Your task to perform on an android device: all mails in gmail Image 0: 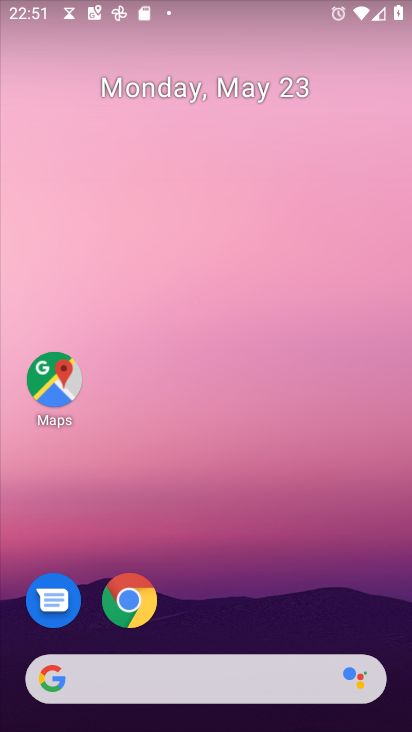
Step 0: drag from (212, 725) to (211, 133)
Your task to perform on an android device: all mails in gmail Image 1: 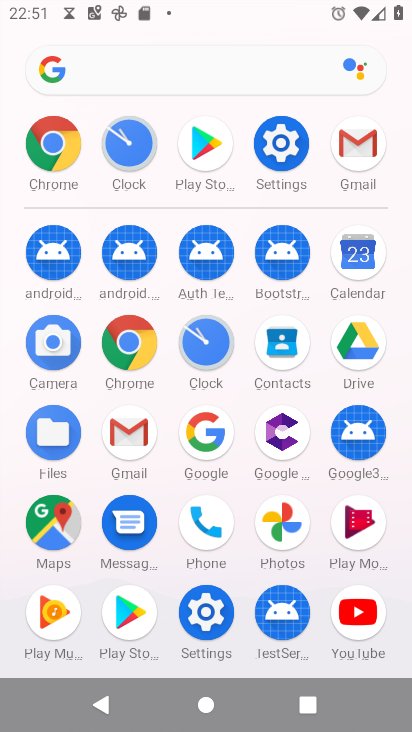
Step 1: click (130, 446)
Your task to perform on an android device: all mails in gmail Image 2: 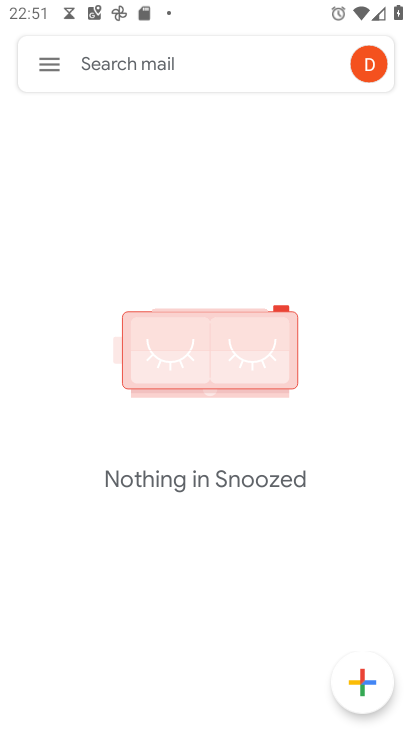
Step 2: click (45, 61)
Your task to perform on an android device: all mails in gmail Image 3: 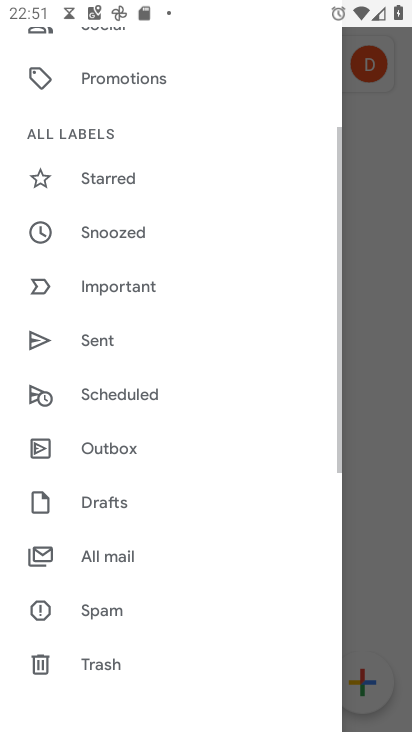
Step 3: click (91, 554)
Your task to perform on an android device: all mails in gmail Image 4: 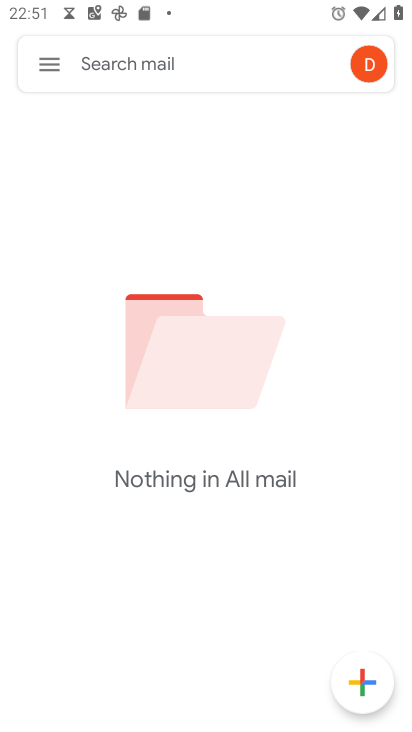
Step 4: task complete